Your task to perform on an android device: open a bookmark in the chrome app Image 0: 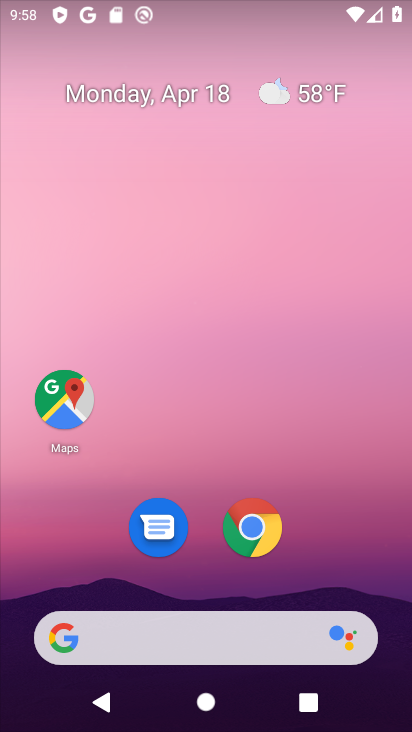
Step 0: click (252, 516)
Your task to perform on an android device: open a bookmark in the chrome app Image 1: 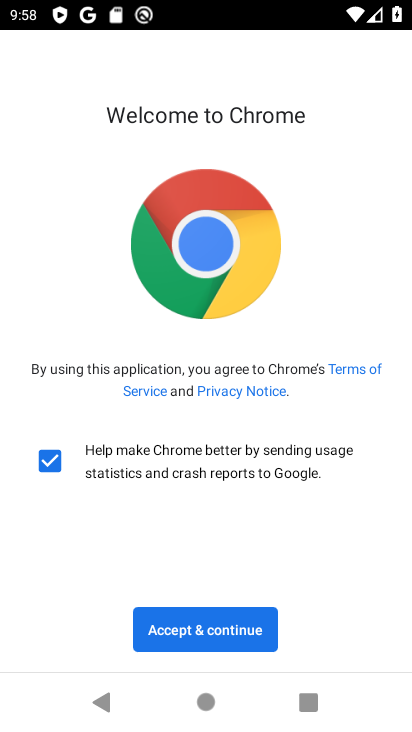
Step 1: click (236, 644)
Your task to perform on an android device: open a bookmark in the chrome app Image 2: 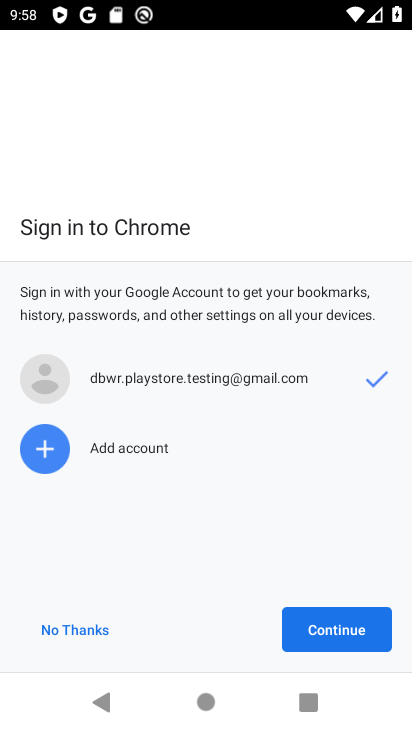
Step 2: click (289, 627)
Your task to perform on an android device: open a bookmark in the chrome app Image 3: 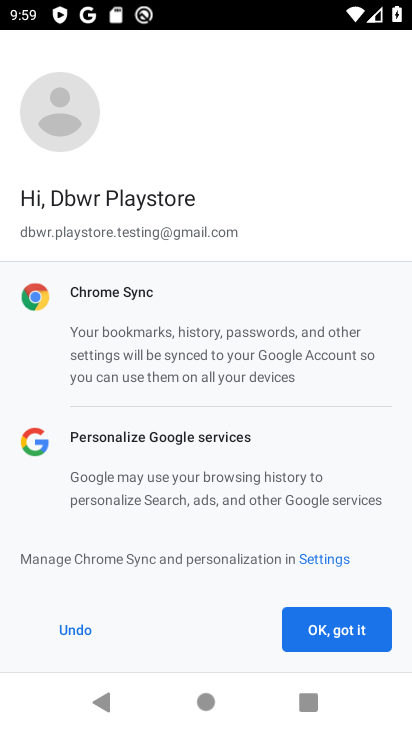
Step 3: click (314, 616)
Your task to perform on an android device: open a bookmark in the chrome app Image 4: 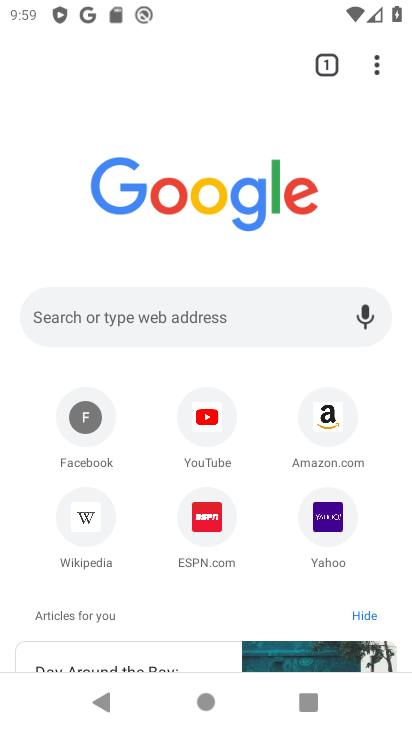
Step 4: click (374, 60)
Your task to perform on an android device: open a bookmark in the chrome app Image 5: 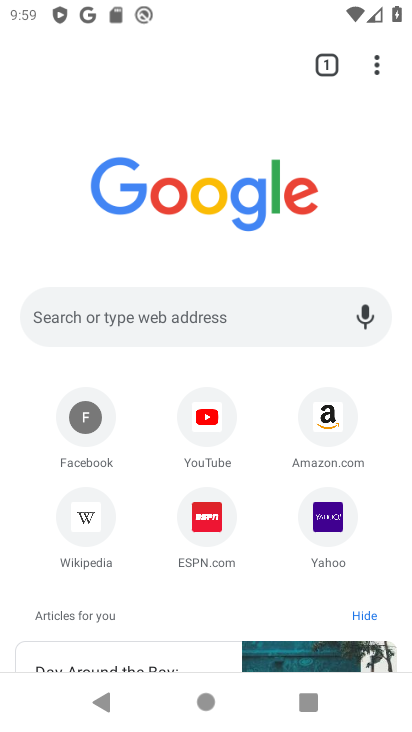
Step 5: click (377, 60)
Your task to perform on an android device: open a bookmark in the chrome app Image 6: 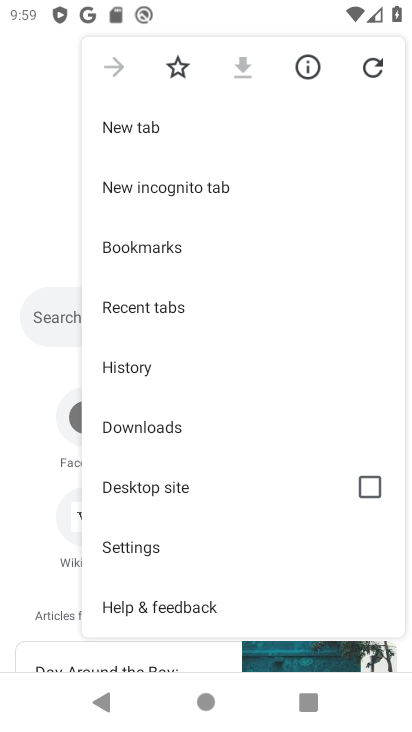
Step 6: click (141, 239)
Your task to perform on an android device: open a bookmark in the chrome app Image 7: 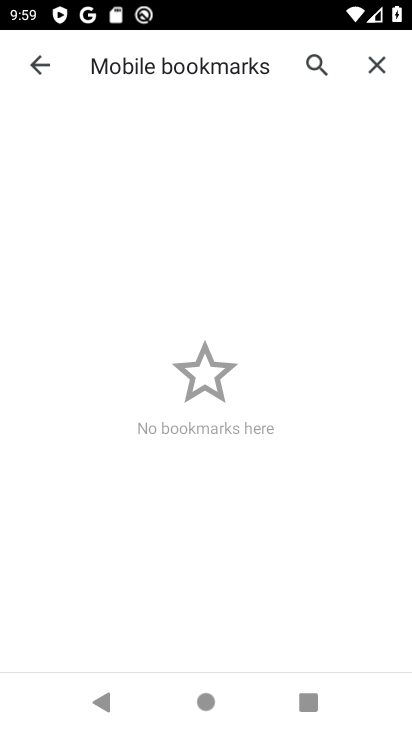
Step 7: task complete